Your task to perform on an android device: turn on location history Image 0: 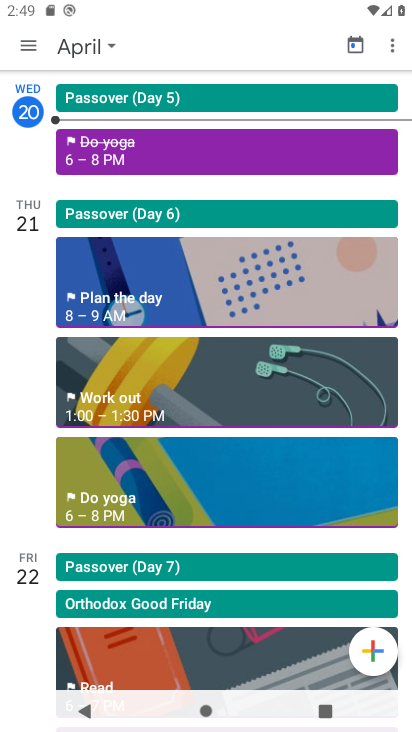
Step 0: click (336, 608)
Your task to perform on an android device: turn on location history Image 1: 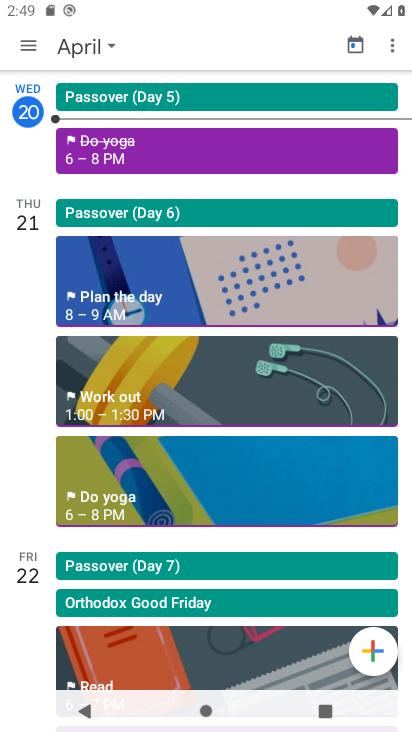
Step 1: press home button
Your task to perform on an android device: turn on location history Image 2: 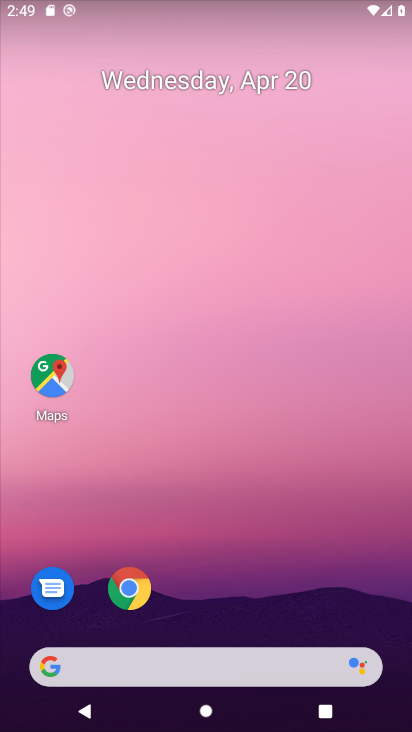
Step 2: drag from (341, 544) to (342, 177)
Your task to perform on an android device: turn on location history Image 3: 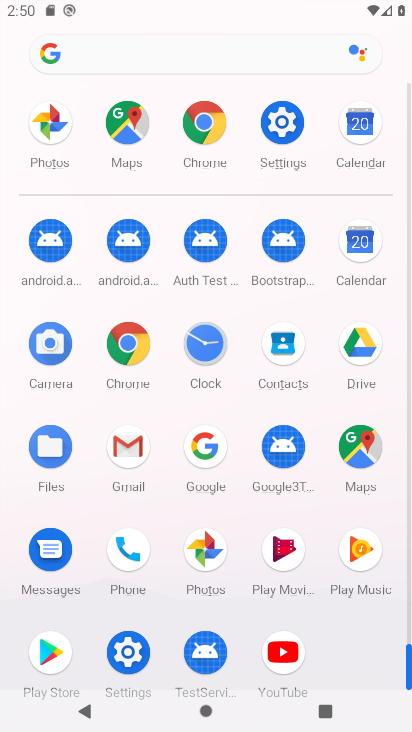
Step 3: click (123, 658)
Your task to perform on an android device: turn on location history Image 4: 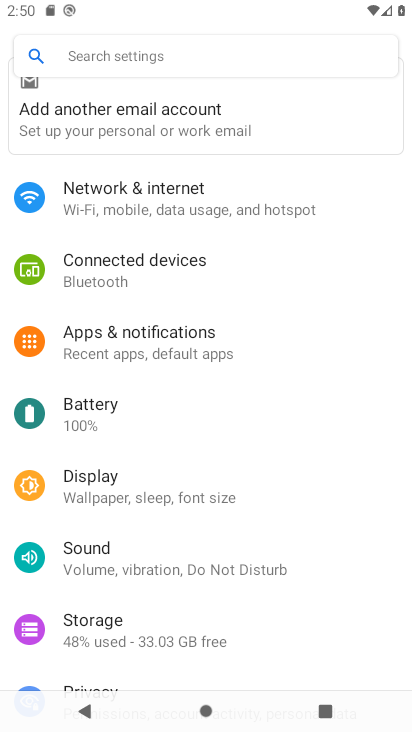
Step 4: drag from (369, 610) to (363, 452)
Your task to perform on an android device: turn on location history Image 5: 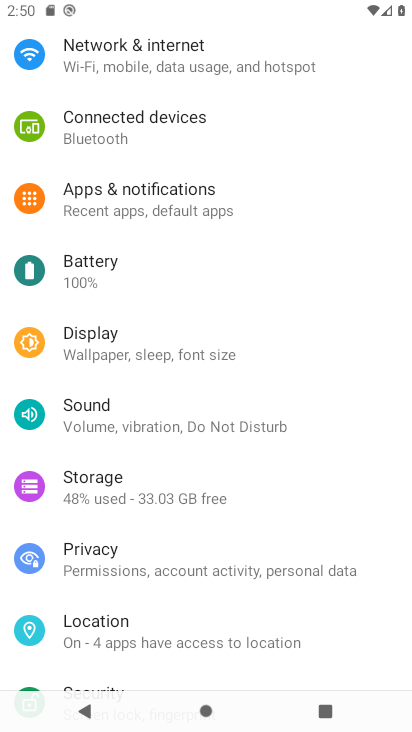
Step 5: drag from (363, 635) to (370, 455)
Your task to perform on an android device: turn on location history Image 6: 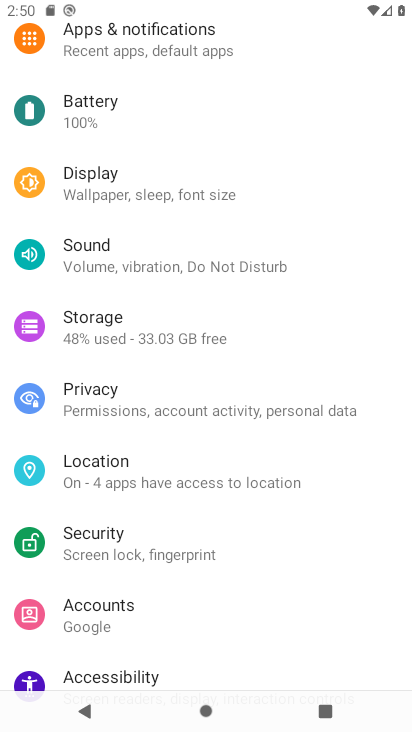
Step 6: drag from (371, 633) to (371, 424)
Your task to perform on an android device: turn on location history Image 7: 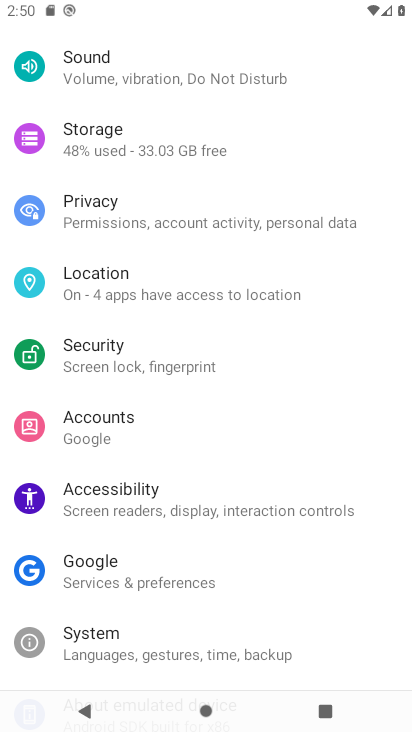
Step 7: drag from (368, 634) to (369, 426)
Your task to perform on an android device: turn on location history Image 8: 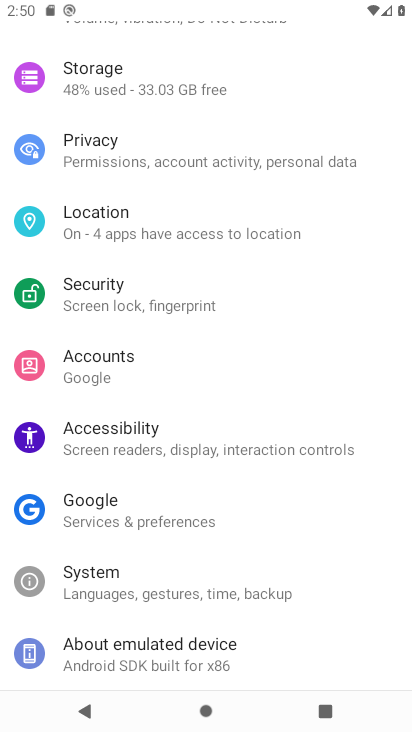
Step 8: drag from (375, 341) to (367, 481)
Your task to perform on an android device: turn on location history Image 9: 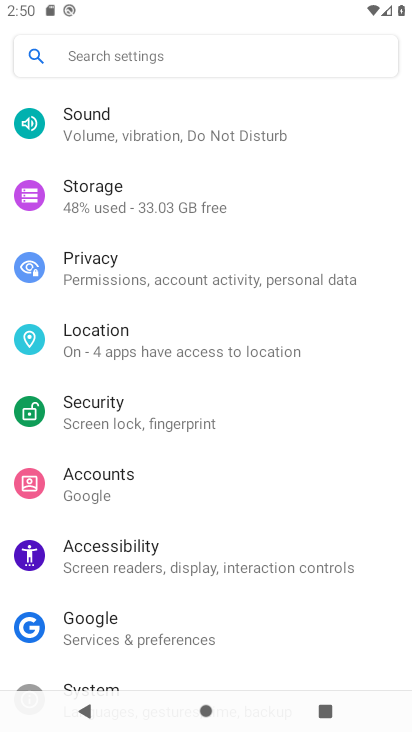
Step 9: drag from (361, 336) to (362, 472)
Your task to perform on an android device: turn on location history Image 10: 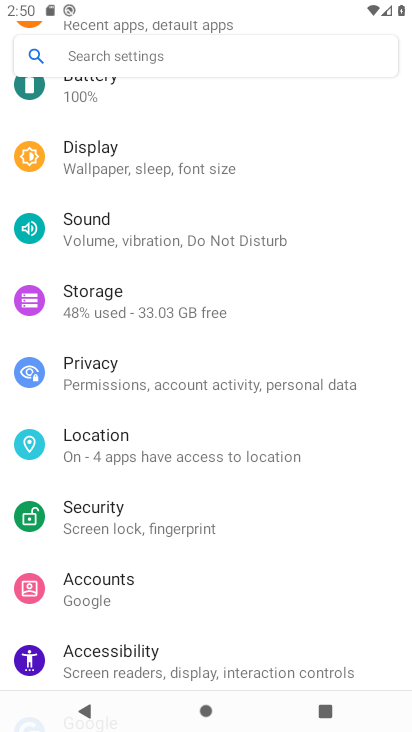
Step 10: click (251, 452)
Your task to perform on an android device: turn on location history Image 11: 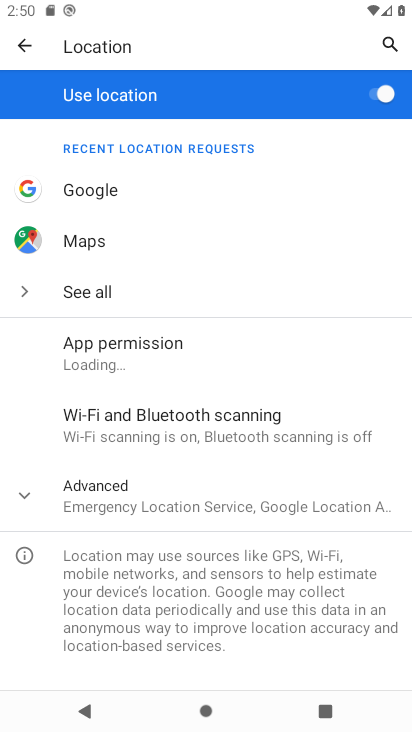
Step 11: click (302, 511)
Your task to perform on an android device: turn on location history Image 12: 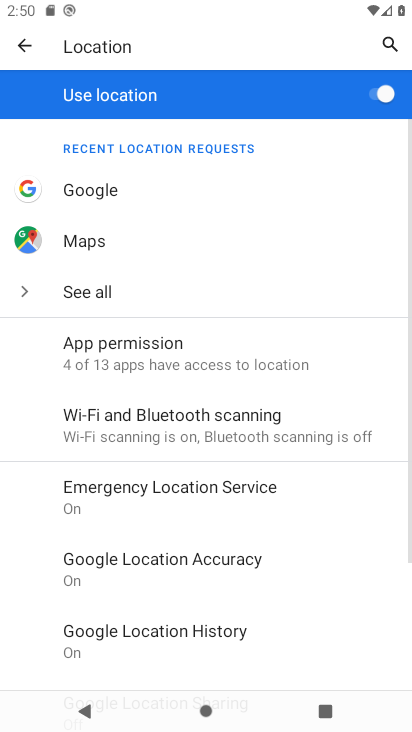
Step 12: drag from (334, 589) to (342, 404)
Your task to perform on an android device: turn on location history Image 13: 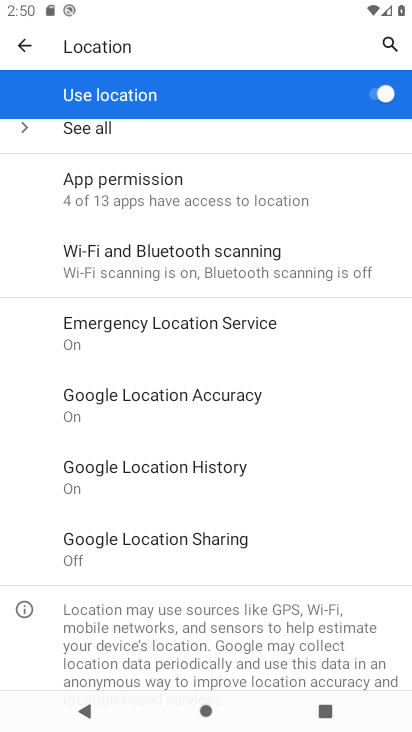
Step 13: drag from (346, 540) to (350, 424)
Your task to perform on an android device: turn on location history Image 14: 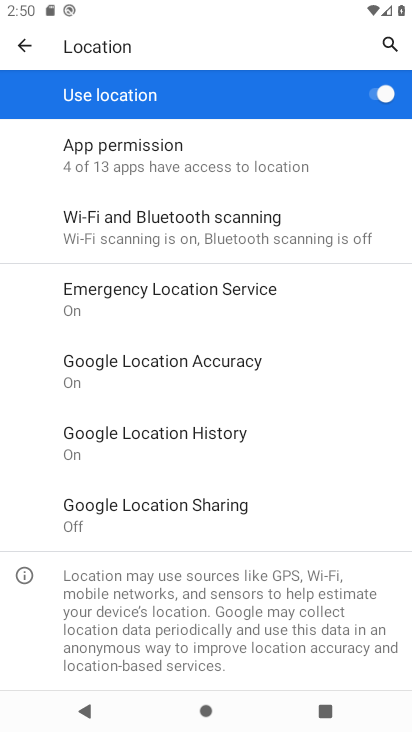
Step 14: click (228, 431)
Your task to perform on an android device: turn on location history Image 15: 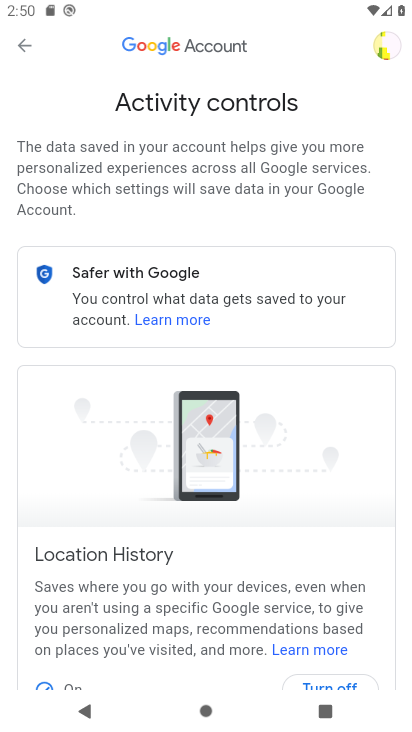
Step 15: task complete